Your task to perform on an android device: delete browsing data in the chrome app Image 0: 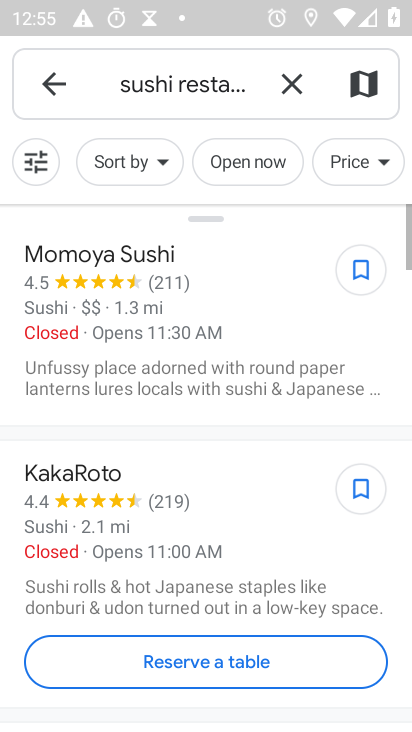
Step 0: press home button
Your task to perform on an android device: delete browsing data in the chrome app Image 1: 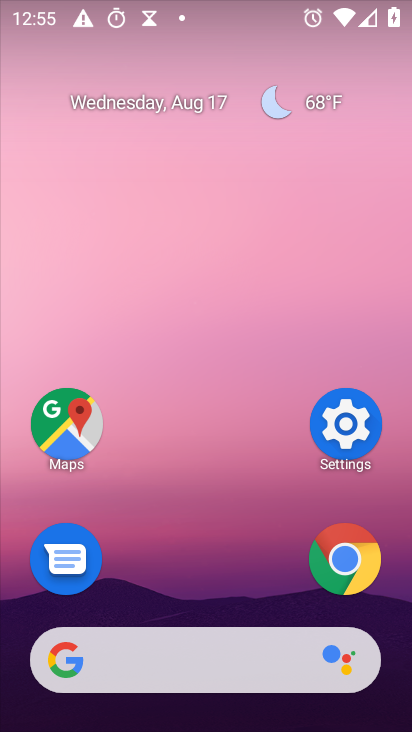
Step 1: click (353, 564)
Your task to perform on an android device: delete browsing data in the chrome app Image 2: 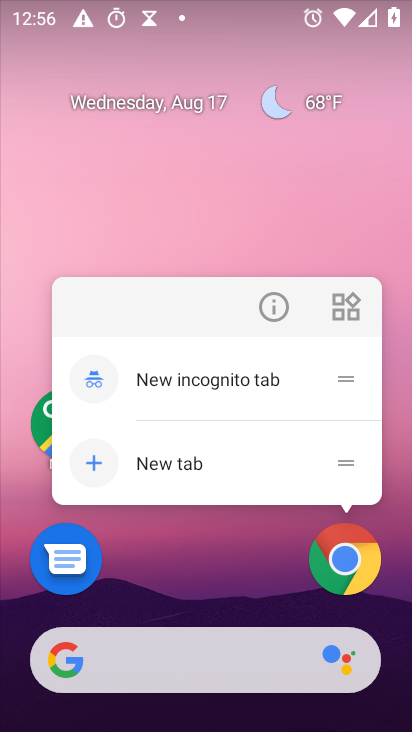
Step 2: click (342, 570)
Your task to perform on an android device: delete browsing data in the chrome app Image 3: 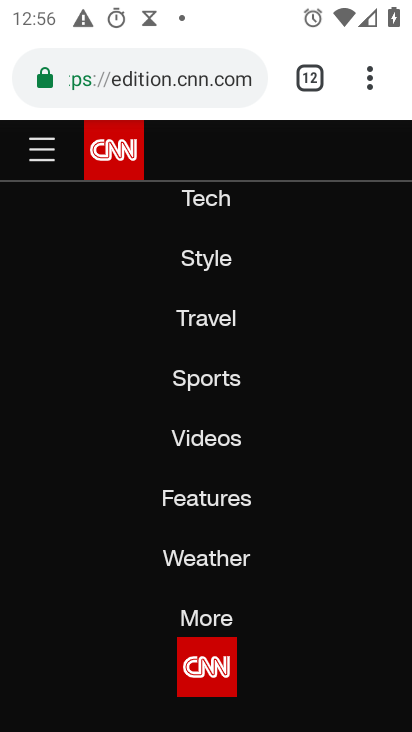
Step 3: drag from (372, 77) to (164, 605)
Your task to perform on an android device: delete browsing data in the chrome app Image 4: 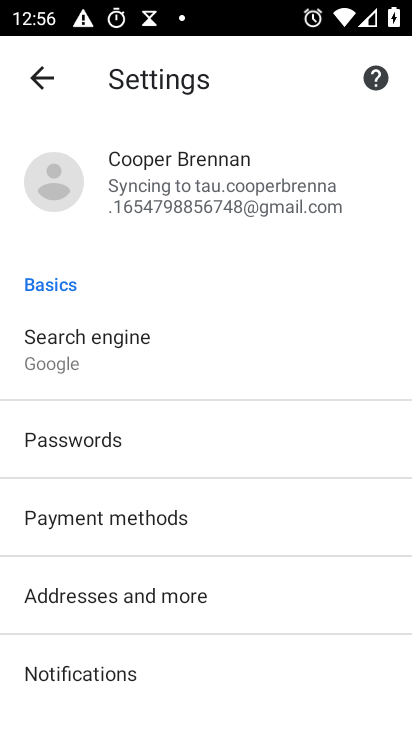
Step 4: drag from (191, 662) to (288, 239)
Your task to perform on an android device: delete browsing data in the chrome app Image 5: 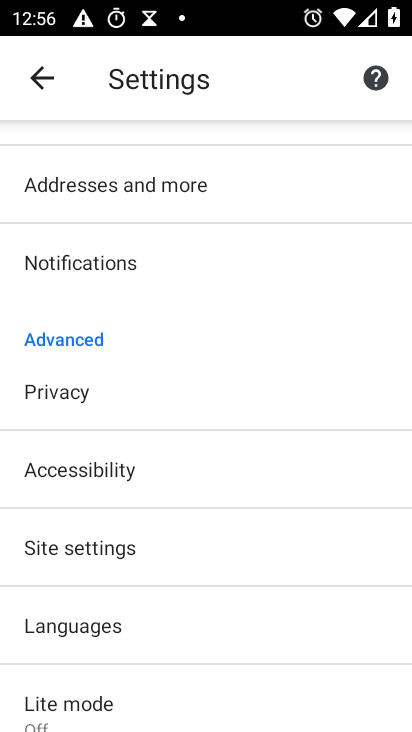
Step 5: click (84, 401)
Your task to perform on an android device: delete browsing data in the chrome app Image 6: 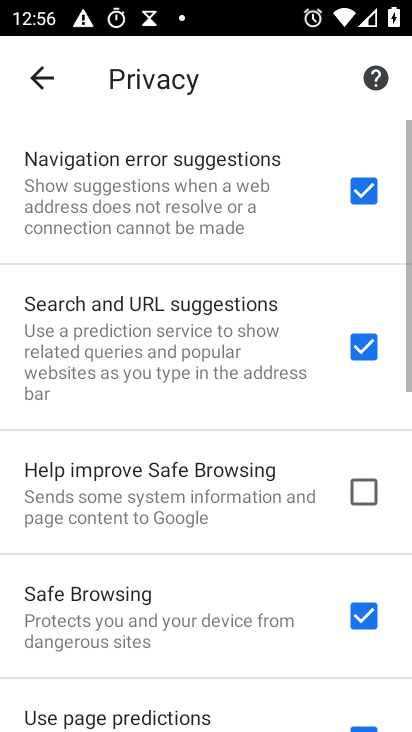
Step 6: drag from (212, 661) to (314, 190)
Your task to perform on an android device: delete browsing data in the chrome app Image 7: 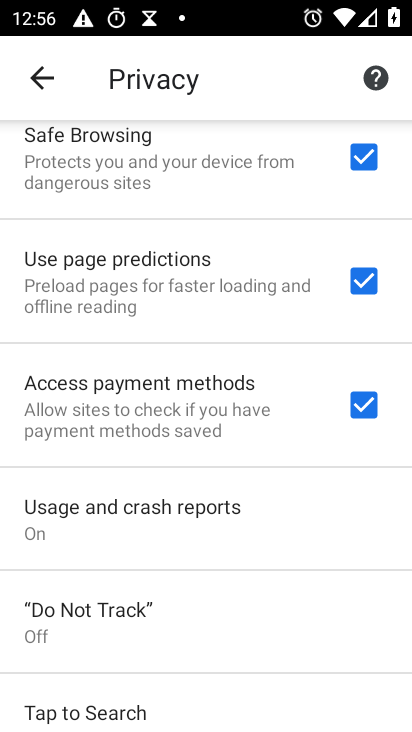
Step 7: drag from (220, 656) to (276, 193)
Your task to perform on an android device: delete browsing data in the chrome app Image 8: 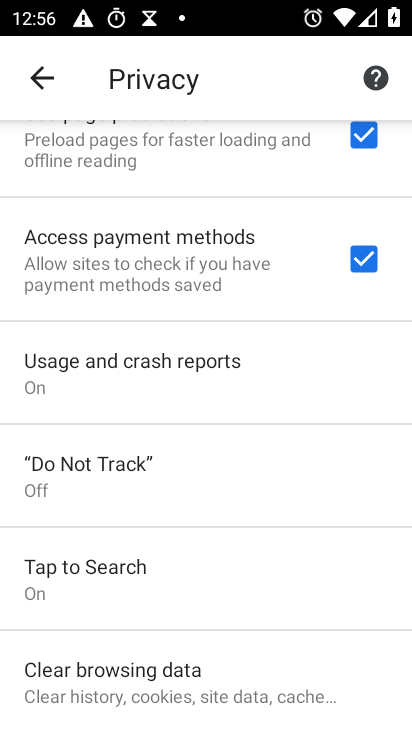
Step 8: click (148, 674)
Your task to perform on an android device: delete browsing data in the chrome app Image 9: 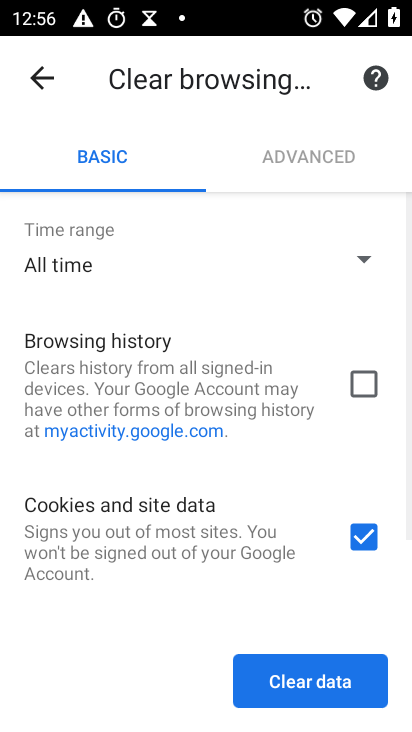
Step 9: click (356, 389)
Your task to perform on an android device: delete browsing data in the chrome app Image 10: 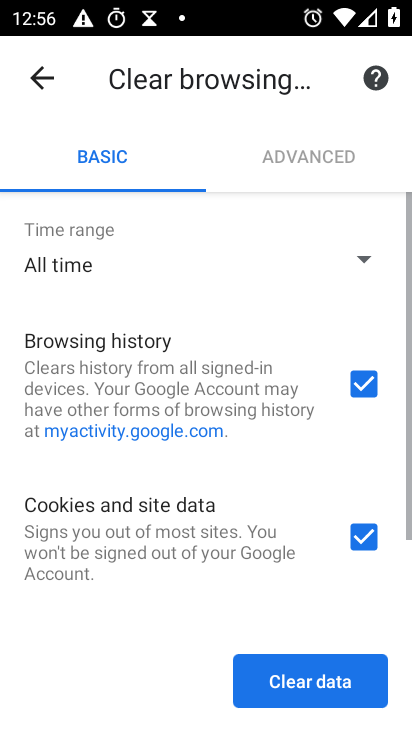
Step 10: drag from (187, 586) to (270, 207)
Your task to perform on an android device: delete browsing data in the chrome app Image 11: 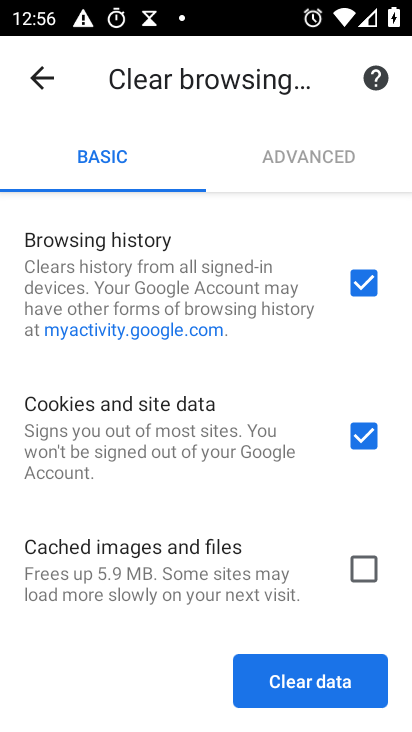
Step 11: click (359, 565)
Your task to perform on an android device: delete browsing data in the chrome app Image 12: 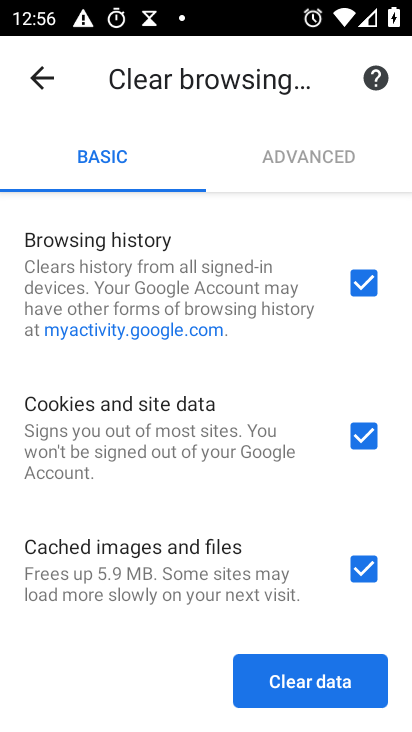
Step 12: click (298, 680)
Your task to perform on an android device: delete browsing data in the chrome app Image 13: 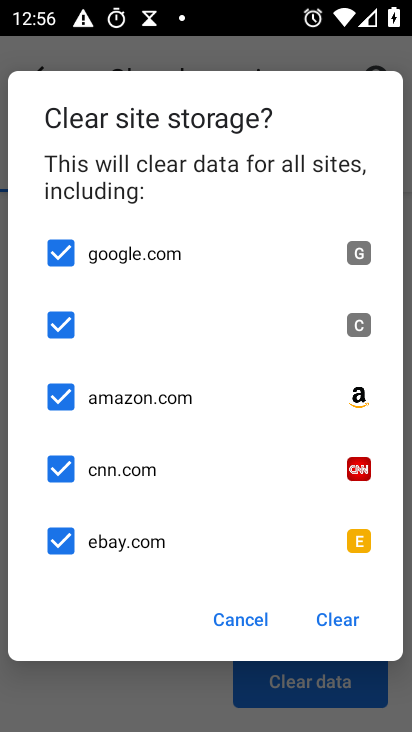
Step 13: click (346, 616)
Your task to perform on an android device: delete browsing data in the chrome app Image 14: 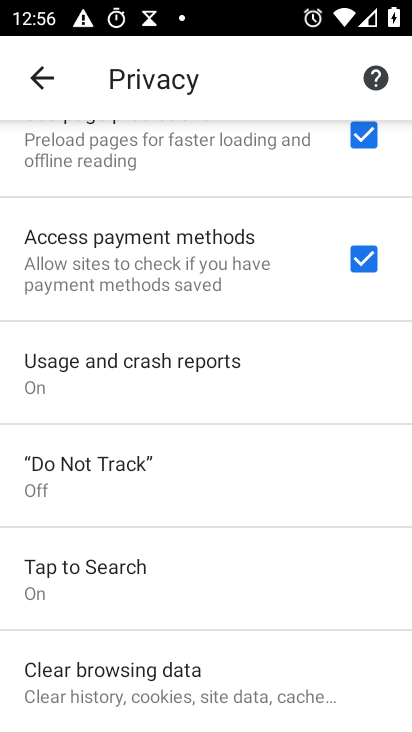
Step 14: task complete